Your task to perform on an android device: check data usage Image 0: 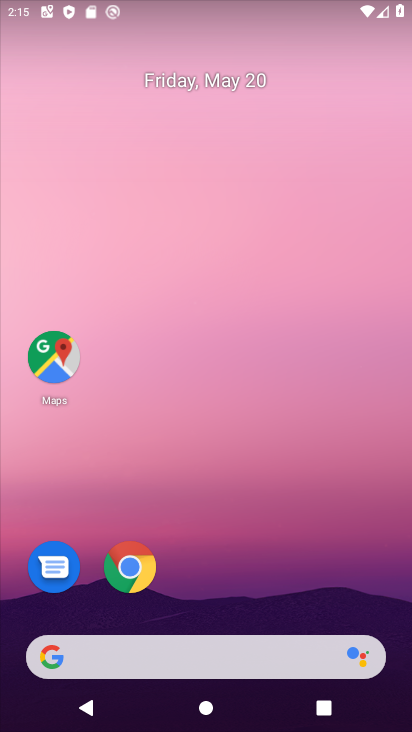
Step 0: drag from (207, 555) to (181, 40)
Your task to perform on an android device: check data usage Image 1: 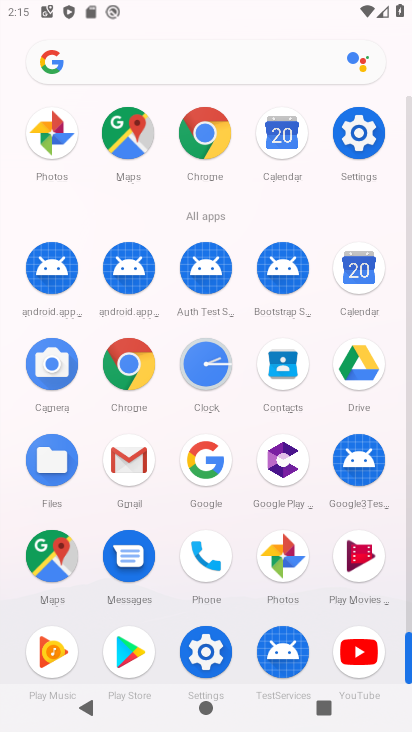
Step 1: drag from (8, 563) to (29, 306)
Your task to perform on an android device: check data usage Image 2: 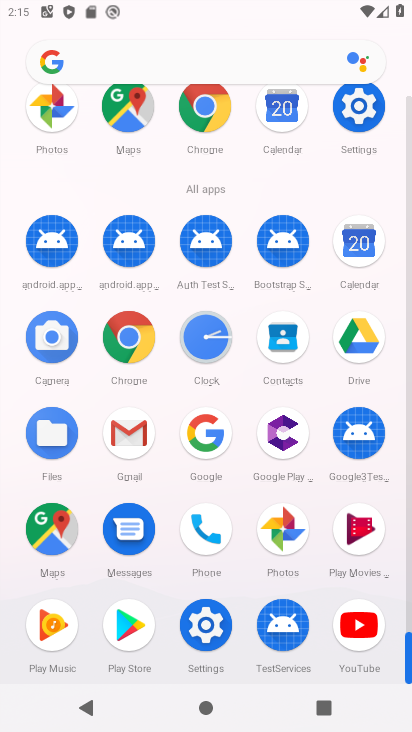
Step 2: click (358, 102)
Your task to perform on an android device: check data usage Image 3: 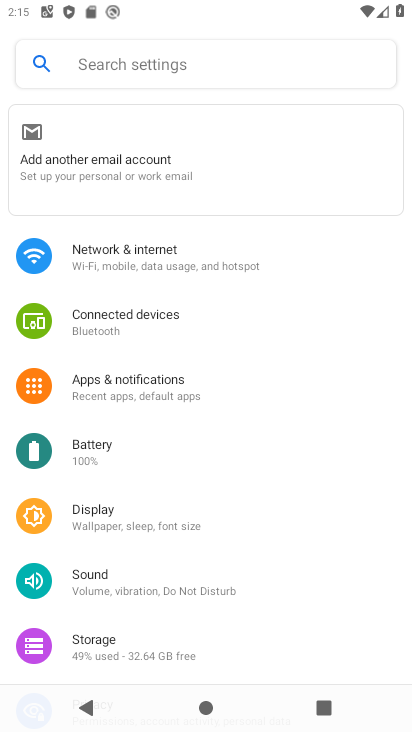
Step 3: click (171, 255)
Your task to perform on an android device: check data usage Image 4: 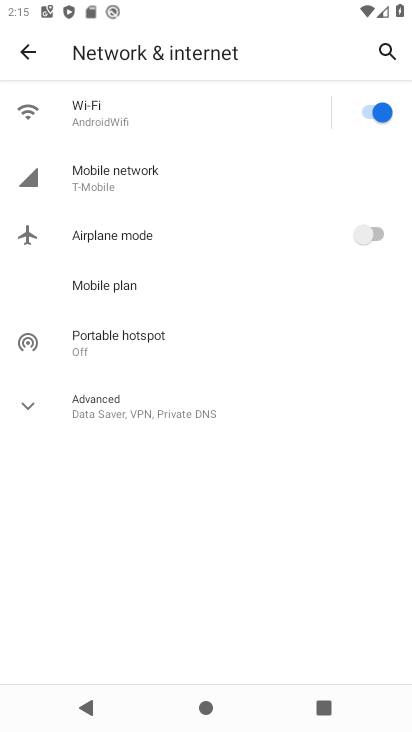
Step 4: click (116, 177)
Your task to perform on an android device: check data usage Image 5: 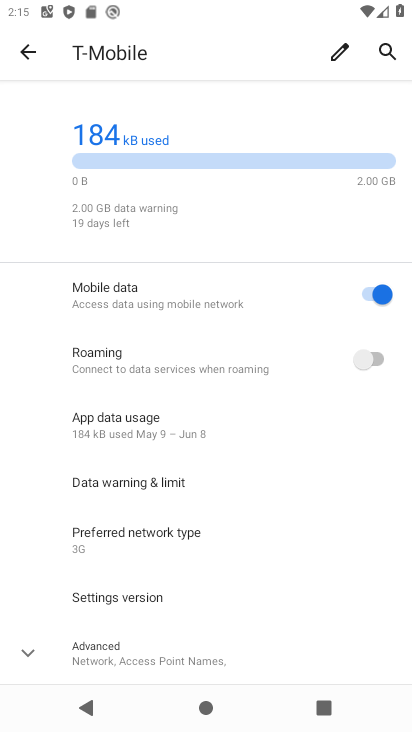
Step 5: task complete